Your task to perform on an android device: Go to calendar. Show me events next week Image 0: 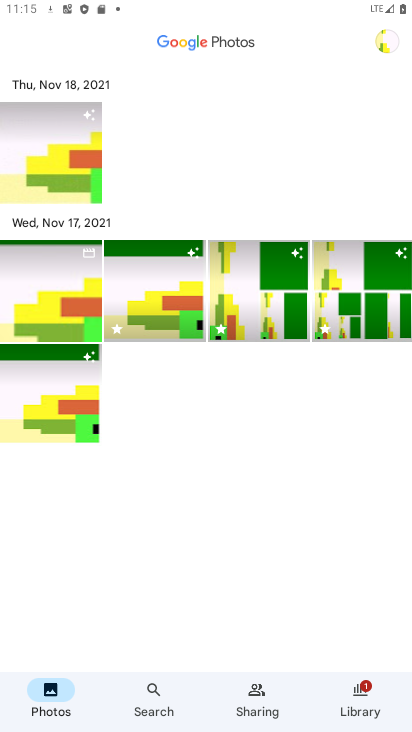
Step 0: press home button
Your task to perform on an android device: Go to calendar. Show me events next week Image 1: 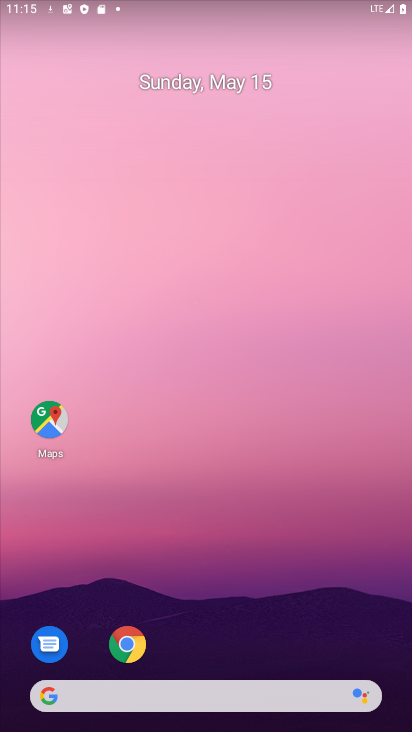
Step 1: drag from (261, 719) to (254, 143)
Your task to perform on an android device: Go to calendar. Show me events next week Image 2: 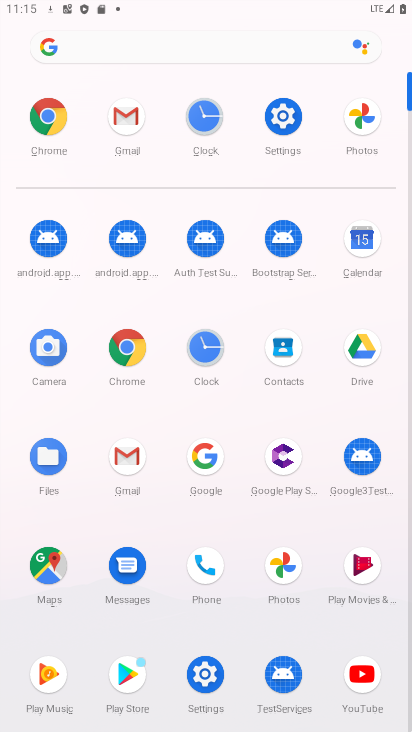
Step 2: click (349, 237)
Your task to perform on an android device: Go to calendar. Show me events next week Image 3: 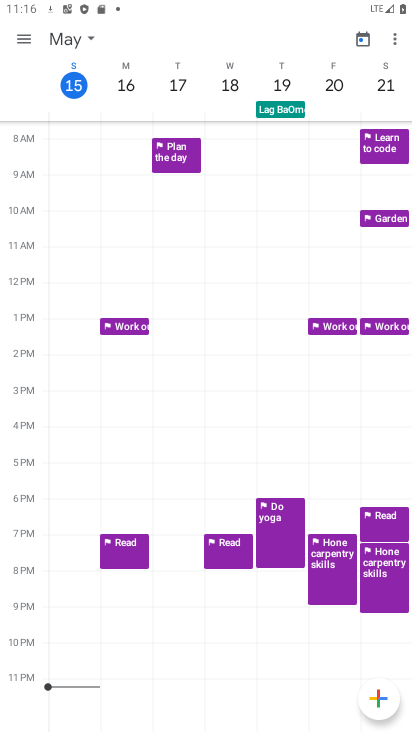
Step 3: click (17, 33)
Your task to perform on an android device: Go to calendar. Show me events next week Image 4: 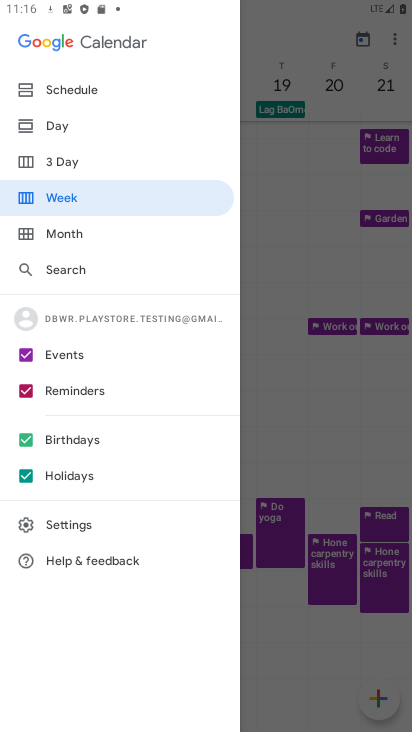
Step 4: click (84, 204)
Your task to perform on an android device: Go to calendar. Show me events next week Image 5: 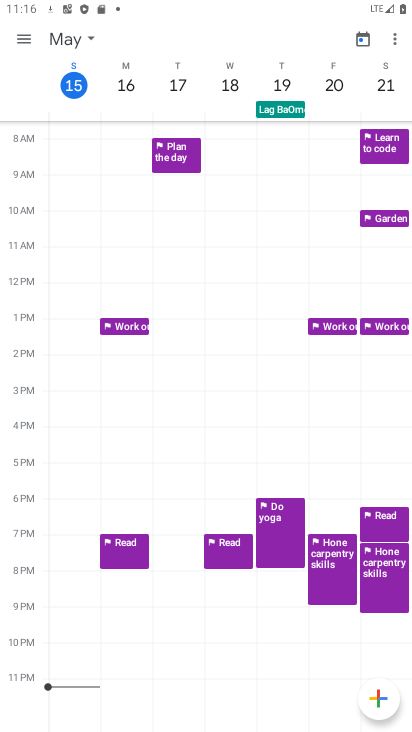
Step 5: task complete